Your task to perform on an android device: Play the new Katy Perry video on YouTube Image 0: 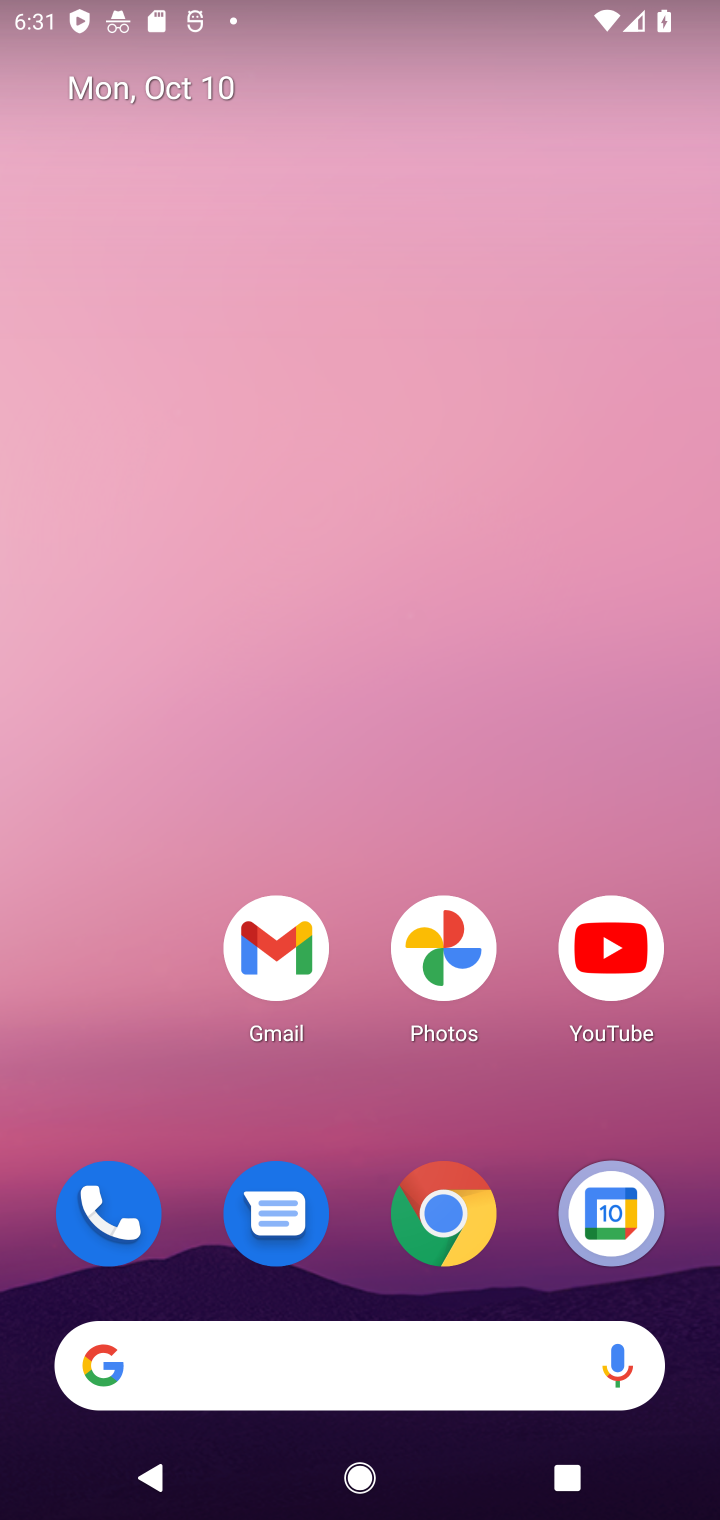
Step 0: click (619, 946)
Your task to perform on an android device: Play the new Katy Perry video on YouTube Image 1: 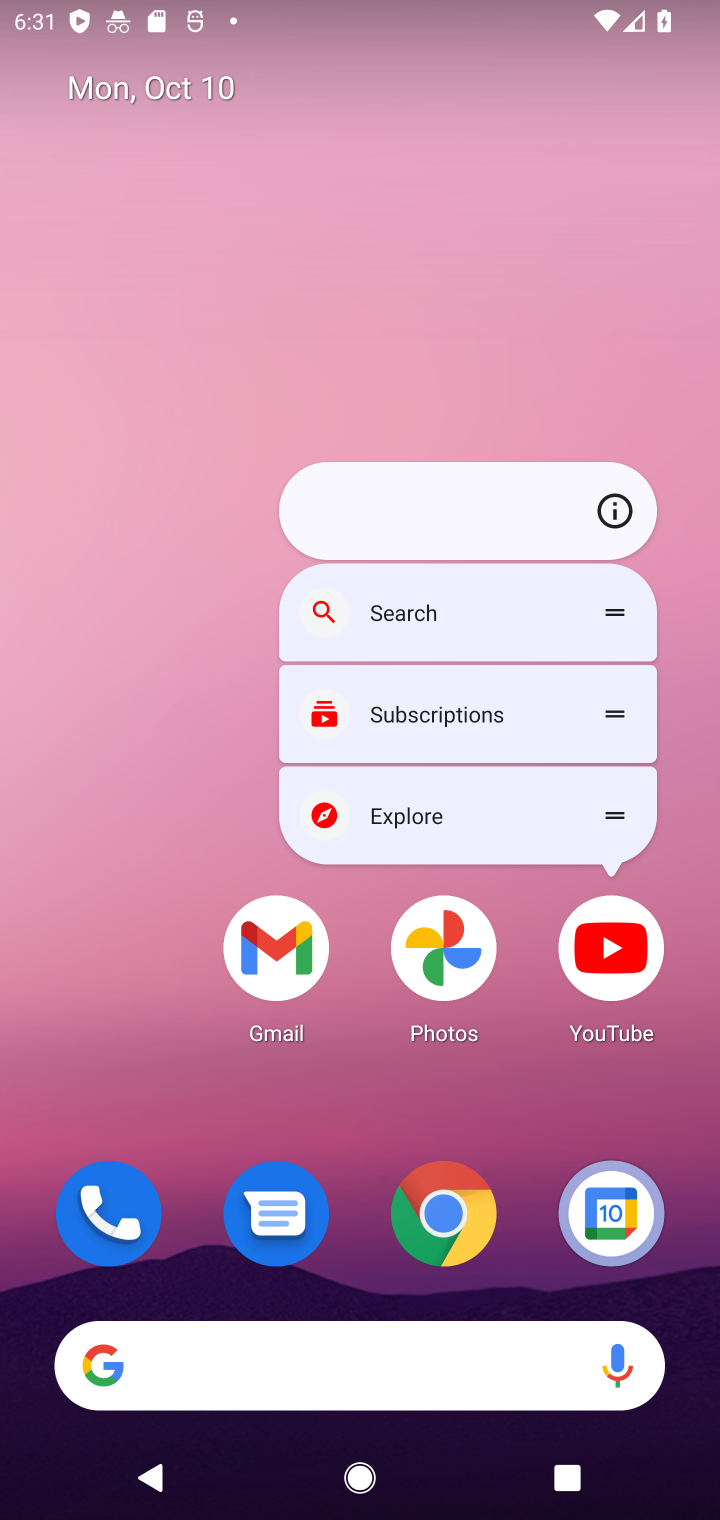
Step 1: click (606, 964)
Your task to perform on an android device: Play the new Katy Perry video on YouTube Image 2: 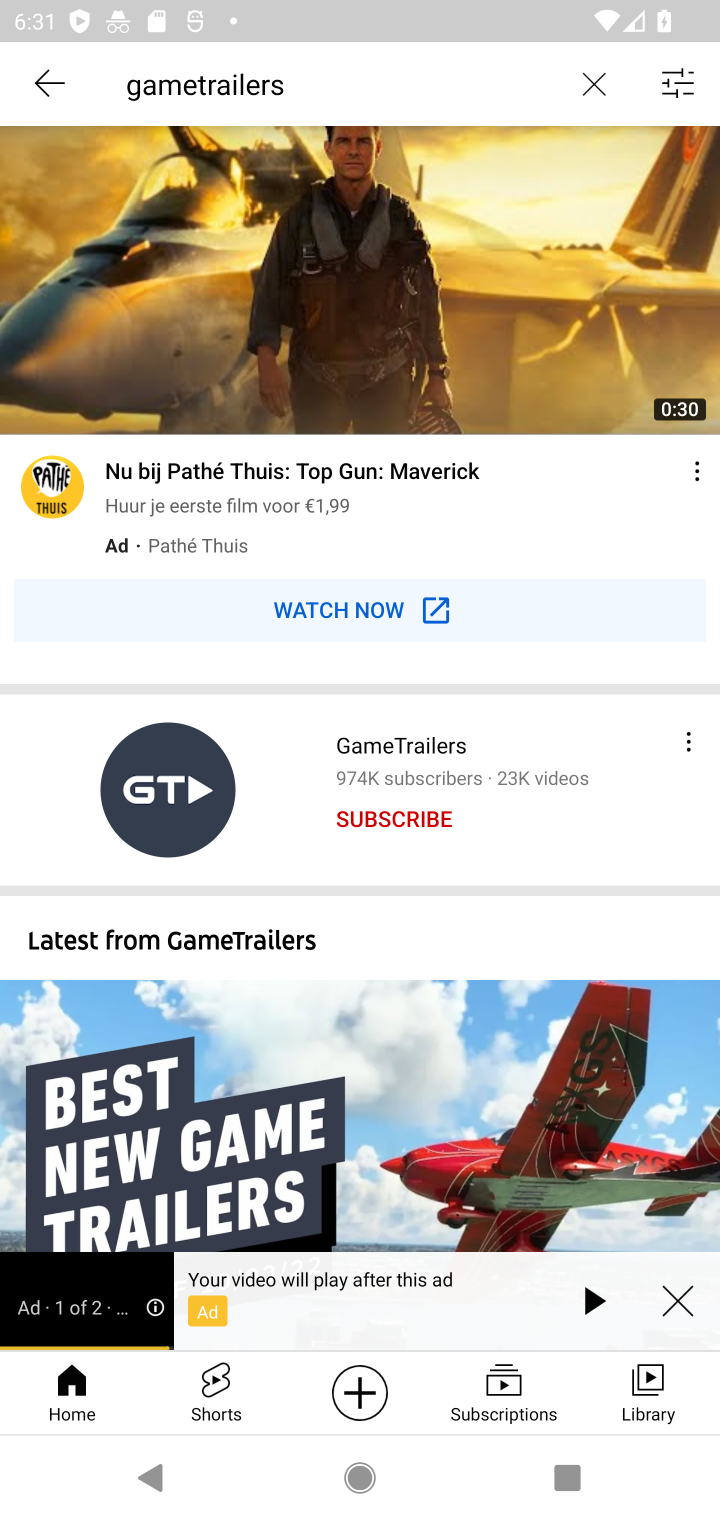
Step 2: click (598, 90)
Your task to perform on an android device: Play the new Katy Perry video on YouTube Image 3: 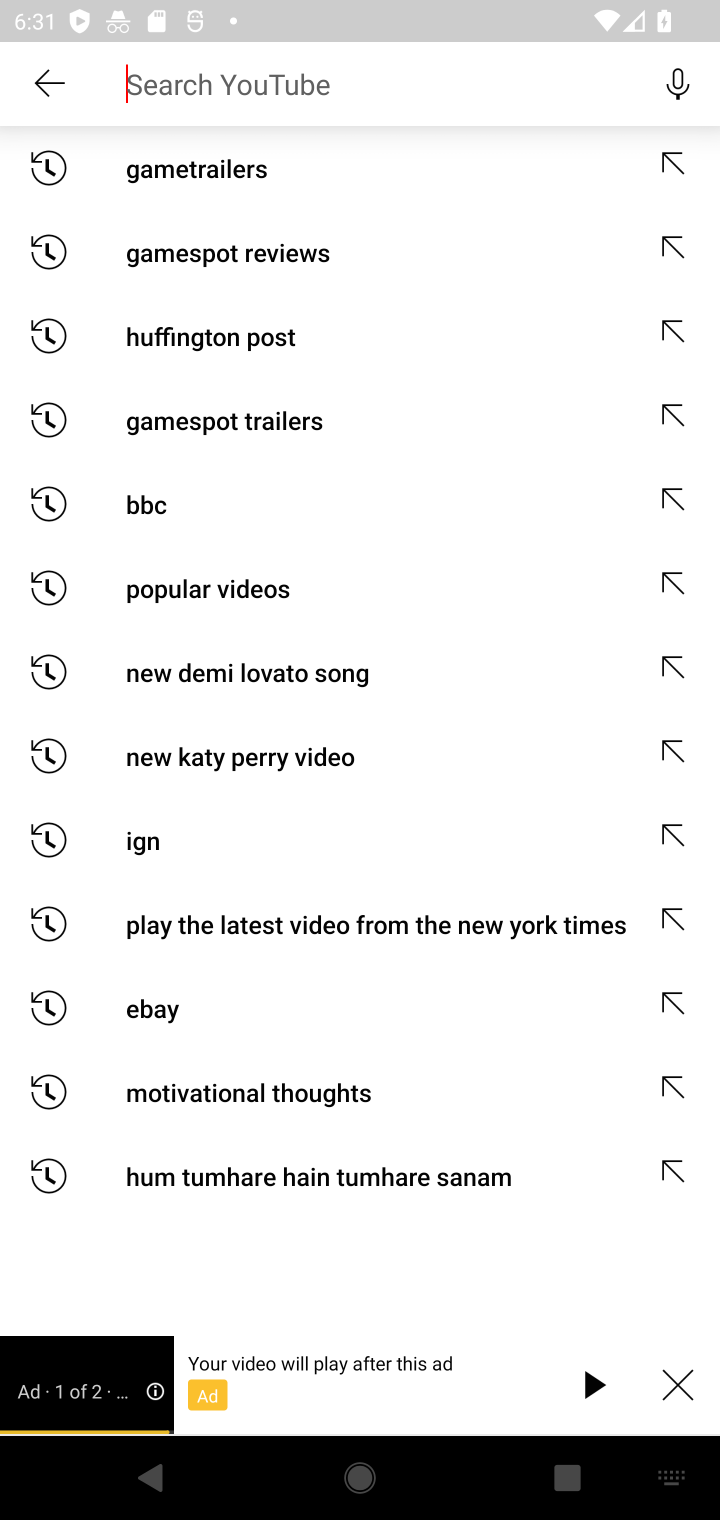
Step 3: click (324, 72)
Your task to perform on an android device: Play the new Katy Perry video on YouTube Image 4: 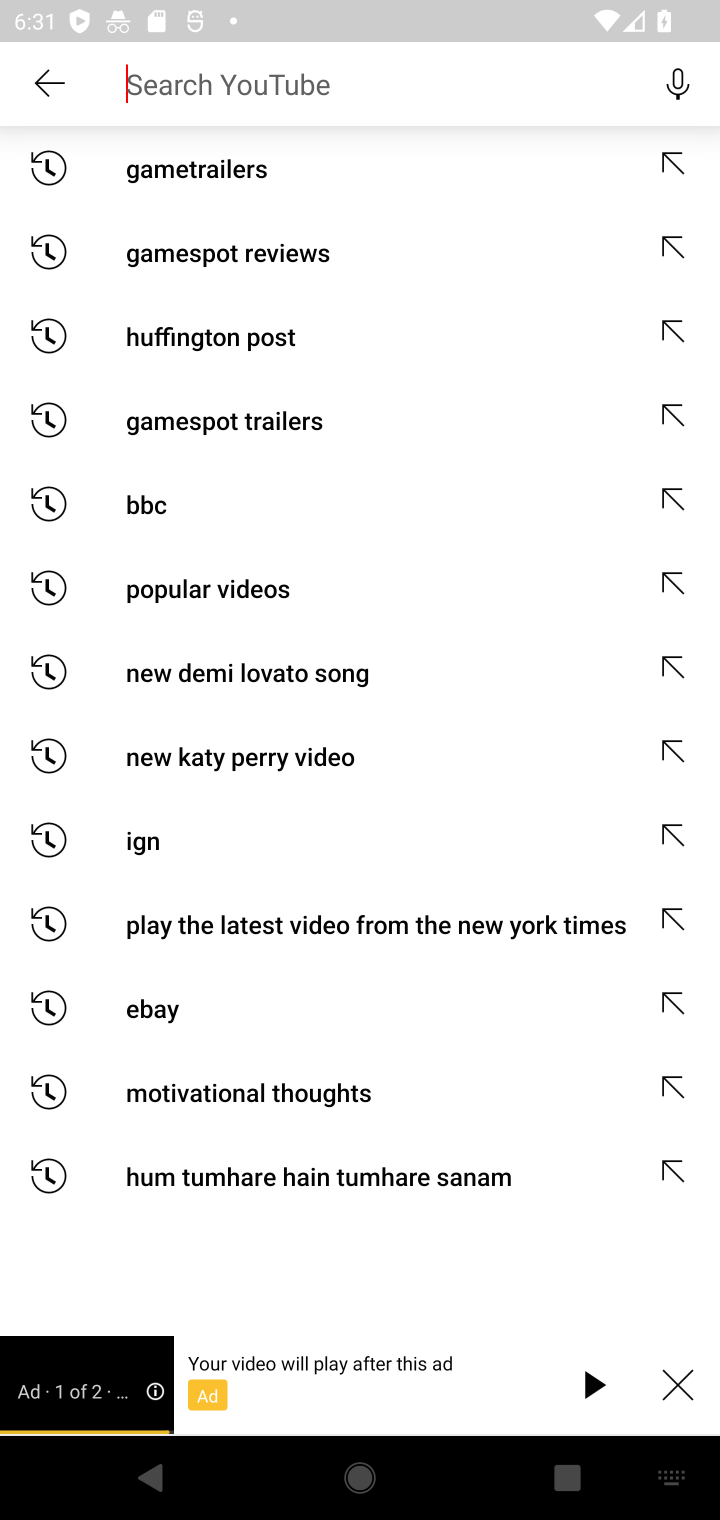
Step 4: type "Katy Perry "
Your task to perform on an android device: Play the new Katy Perry video on YouTube Image 5: 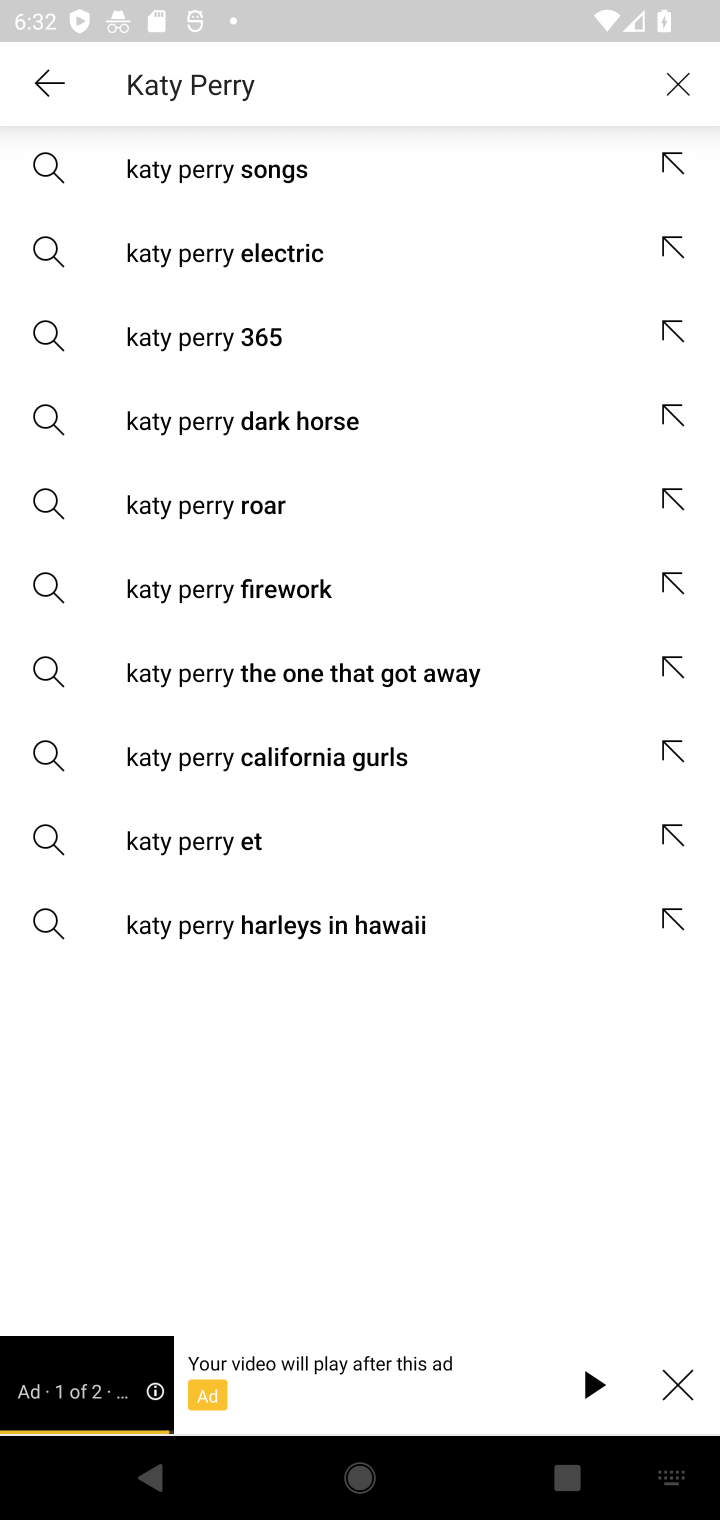
Step 5: click (250, 175)
Your task to perform on an android device: Play the new Katy Perry video on YouTube Image 6: 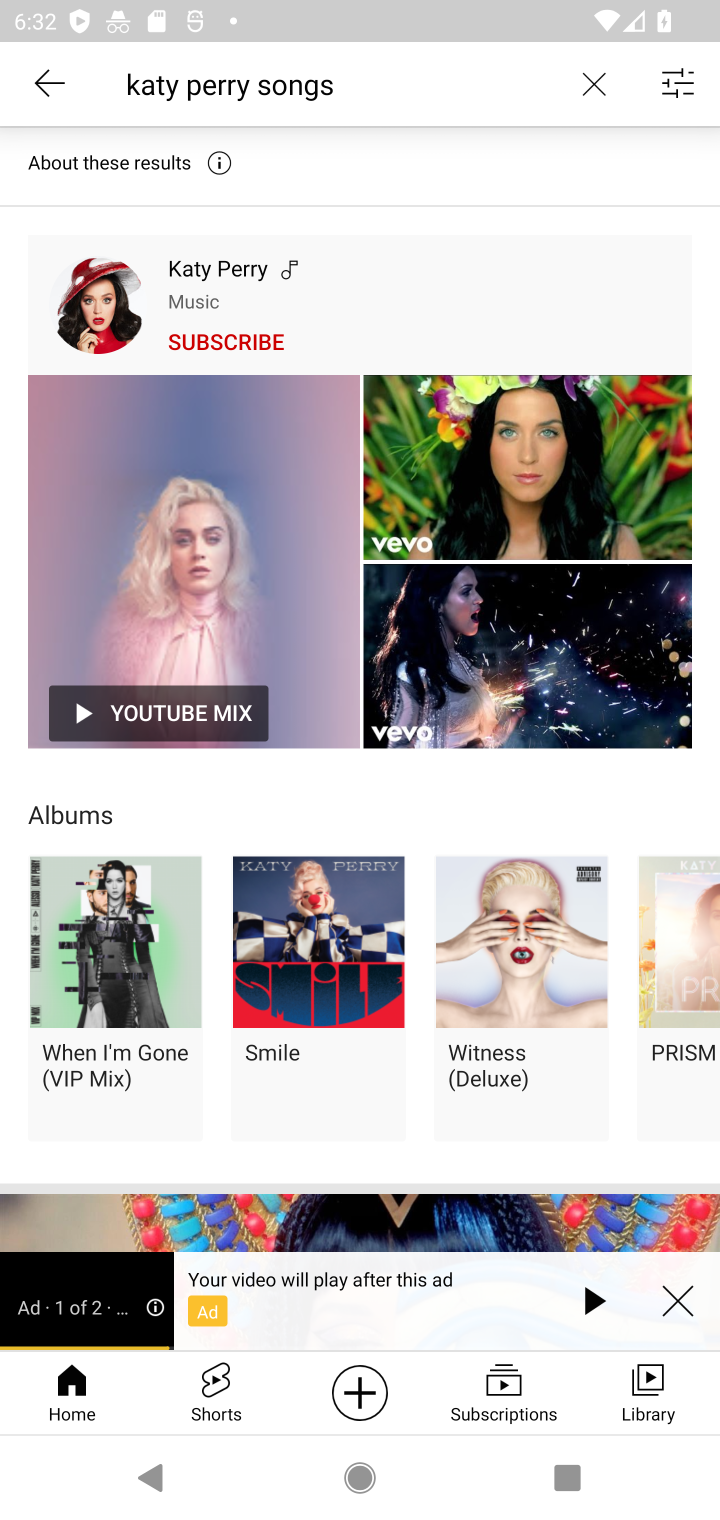
Step 6: drag from (370, 1138) to (524, 157)
Your task to perform on an android device: Play the new Katy Perry video on YouTube Image 7: 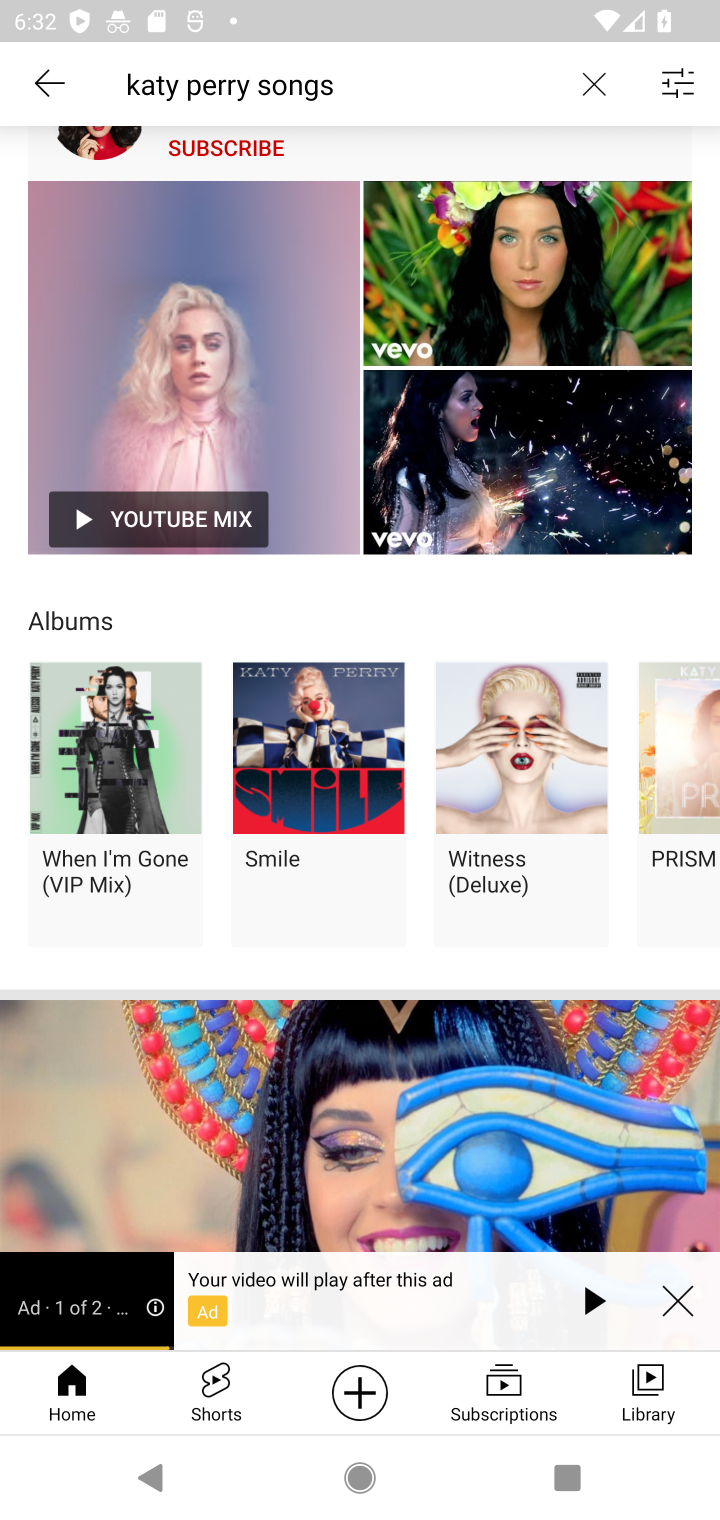
Step 7: drag from (455, 571) to (465, 100)
Your task to perform on an android device: Play the new Katy Perry video on YouTube Image 8: 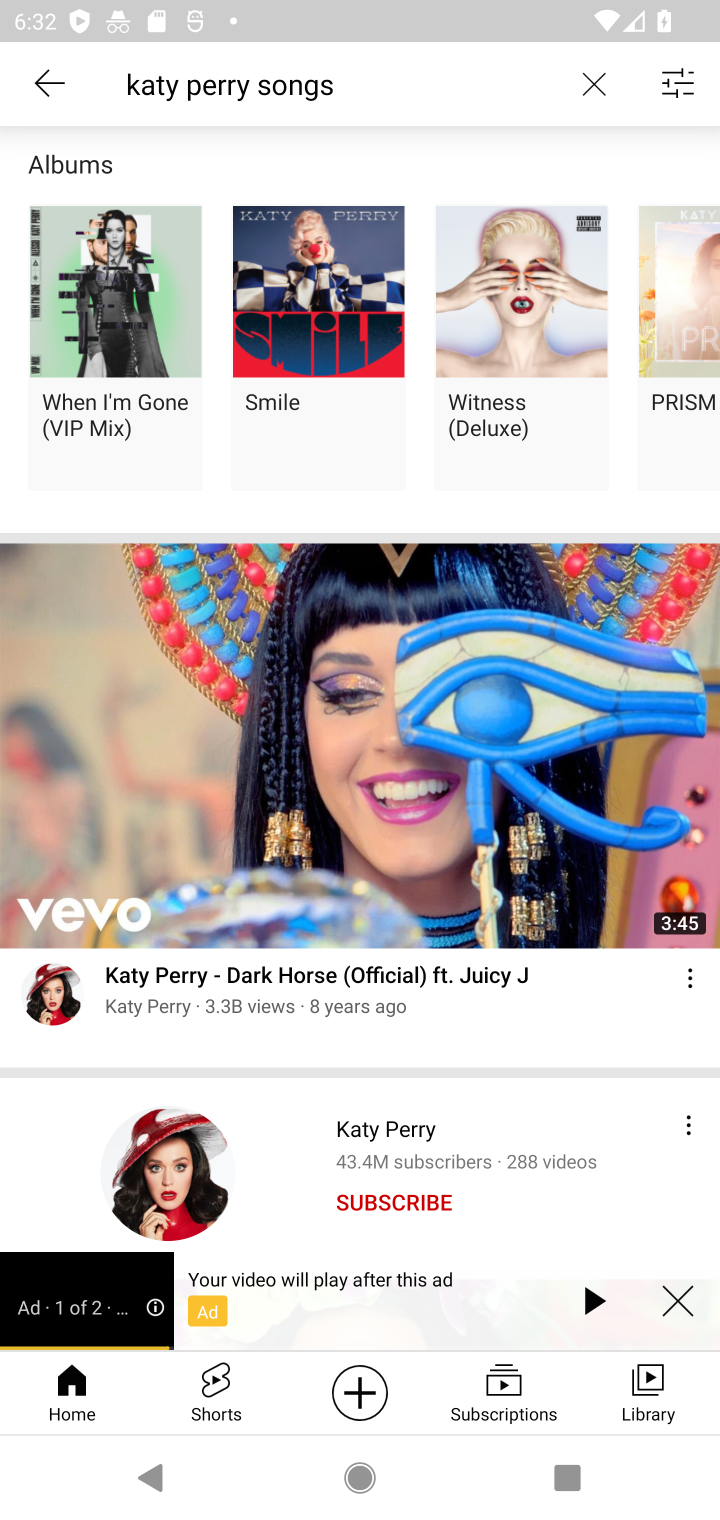
Step 8: drag from (247, 651) to (384, 388)
Your task to perform on an android device: Play the new Katy Perry video on YouTube Image 9: 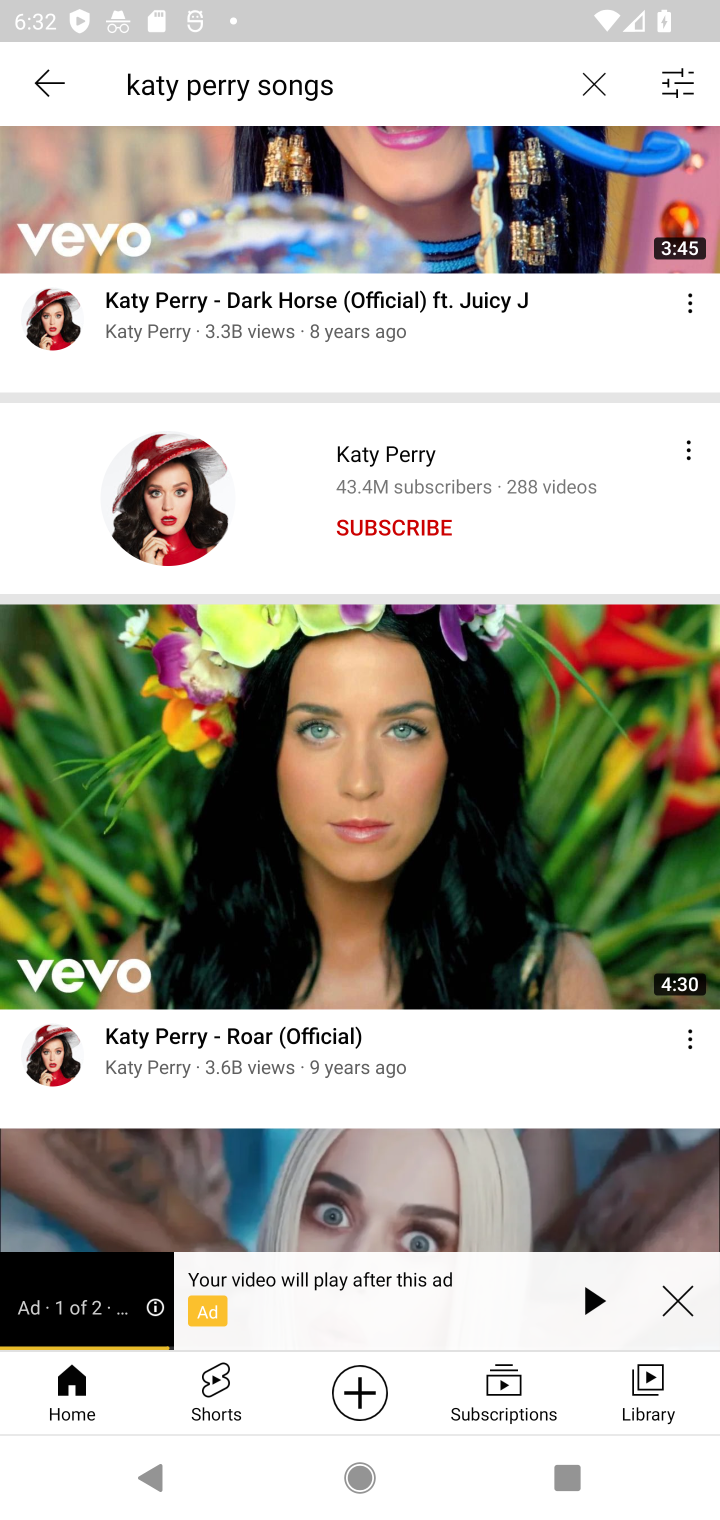
Step 9: click (383, 454)
Your task to perform on an android device: Play the new Katy Perry video on YouTube Image 10: 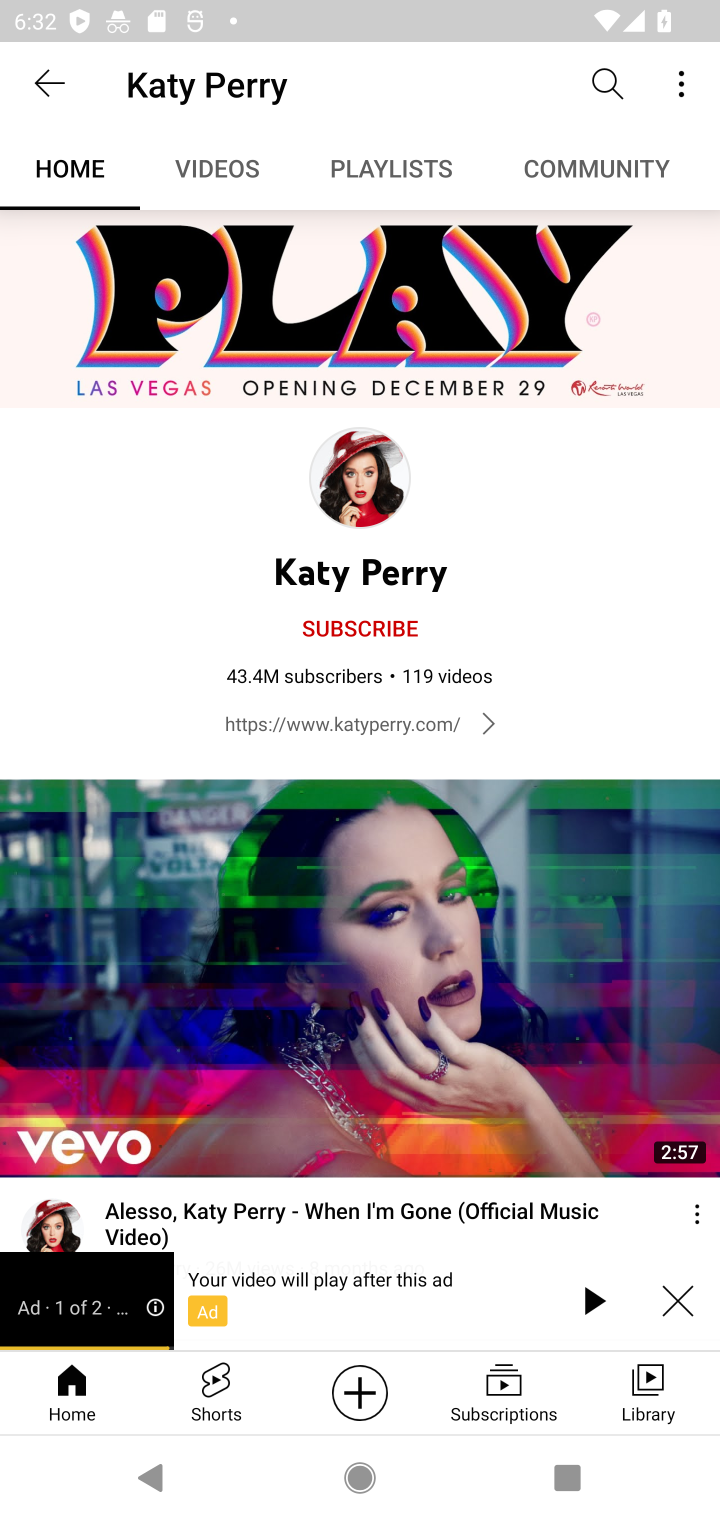
Step 10: drag from (450, 943) to (563, 324)
Your task to perform on an android device: Play the new Katy Perry video on YouTube Image 11: 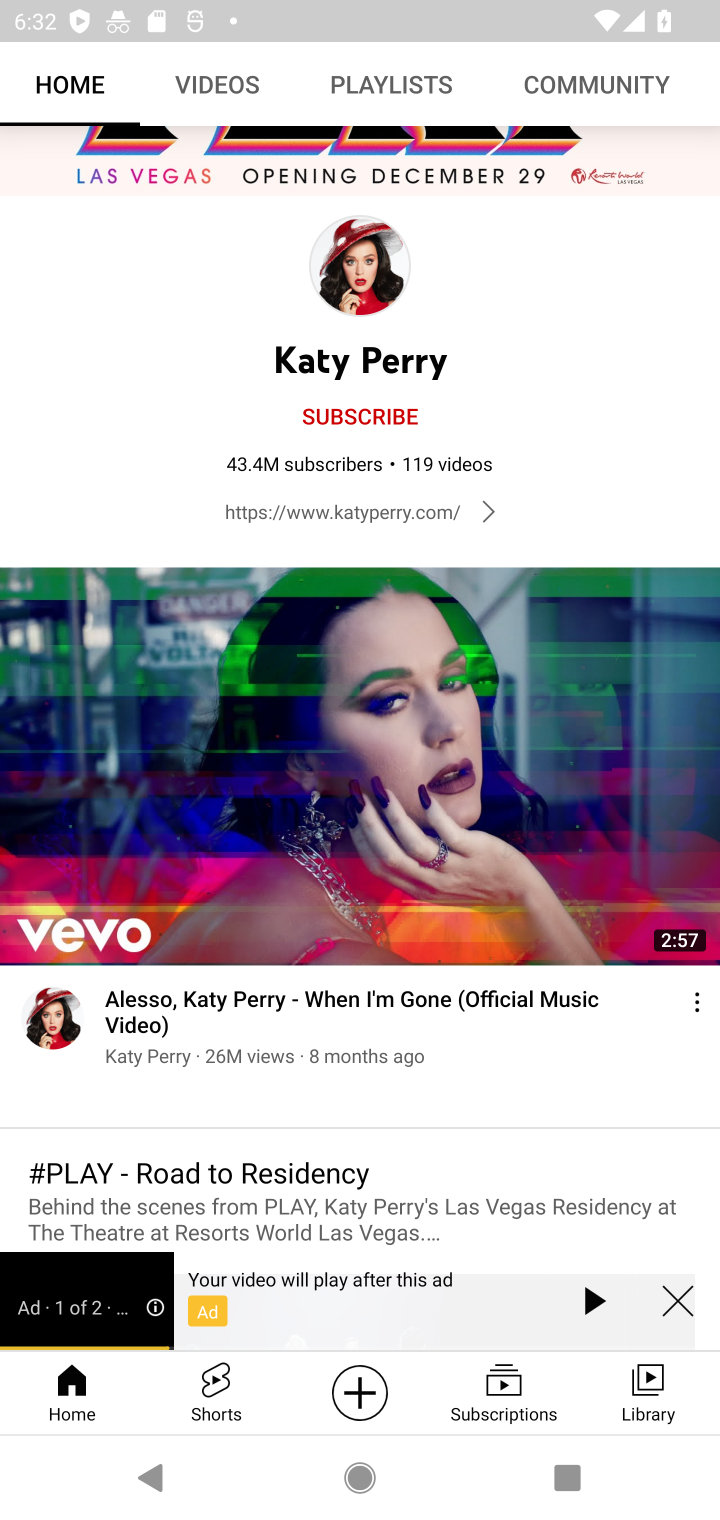
Step 11: click (330, 756)
Your task to perform on an android device: Play the new Katy Perry video on YouTube Image 12: 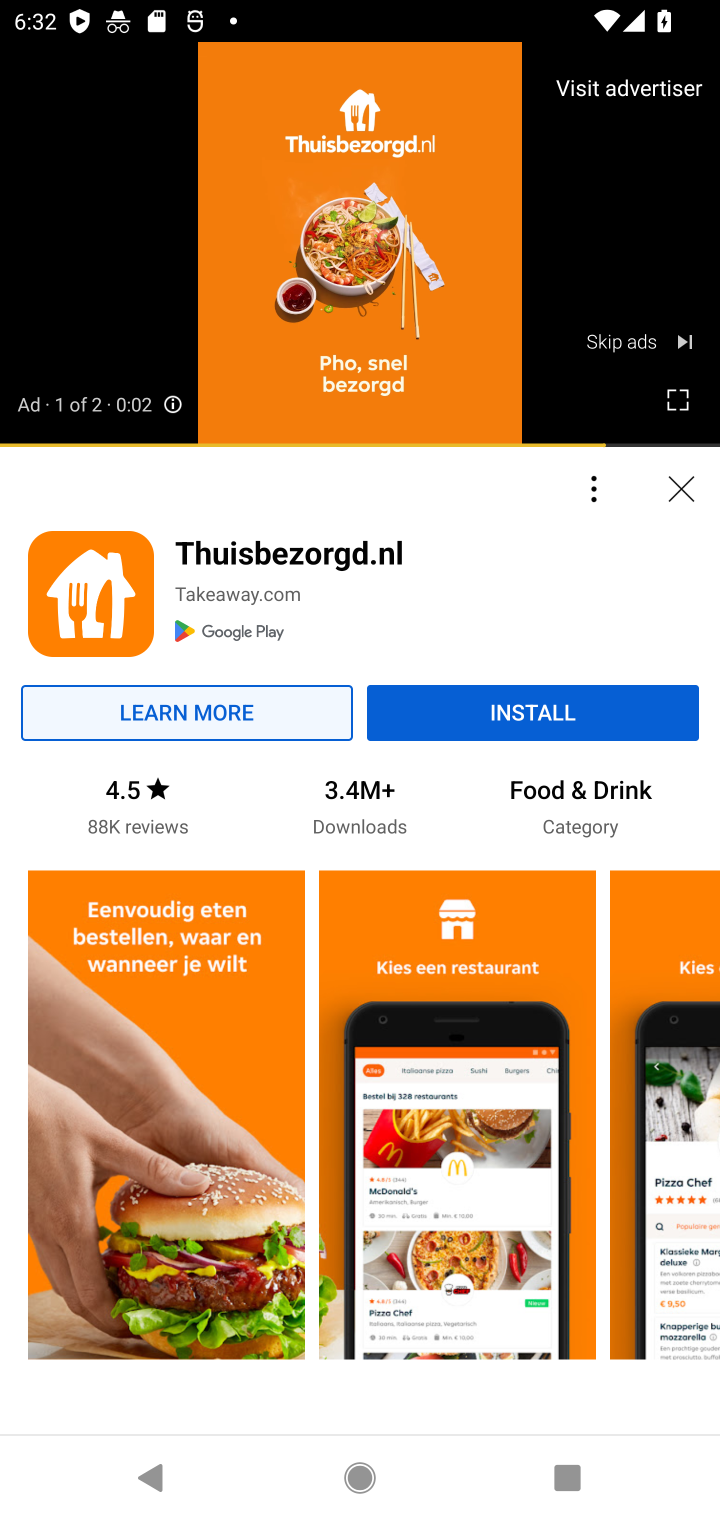
Step 12: click (595, 361)
Your task to perform on an android device: Play the new Katy Perry video on YouTube Image 13: 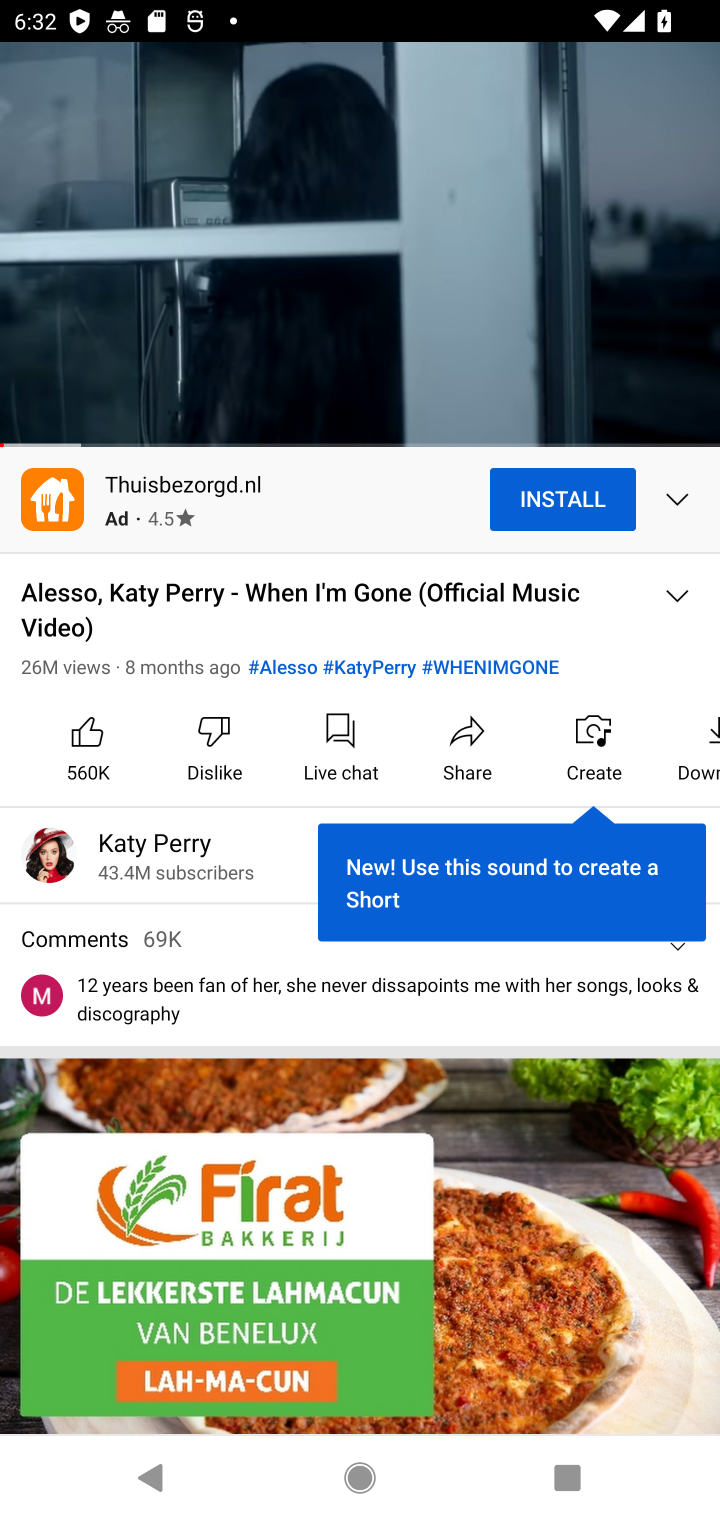
Step 13: click (608, 354)
Your task to perform on an android device: Play the new Katy Perry video on YouTube Image 14: 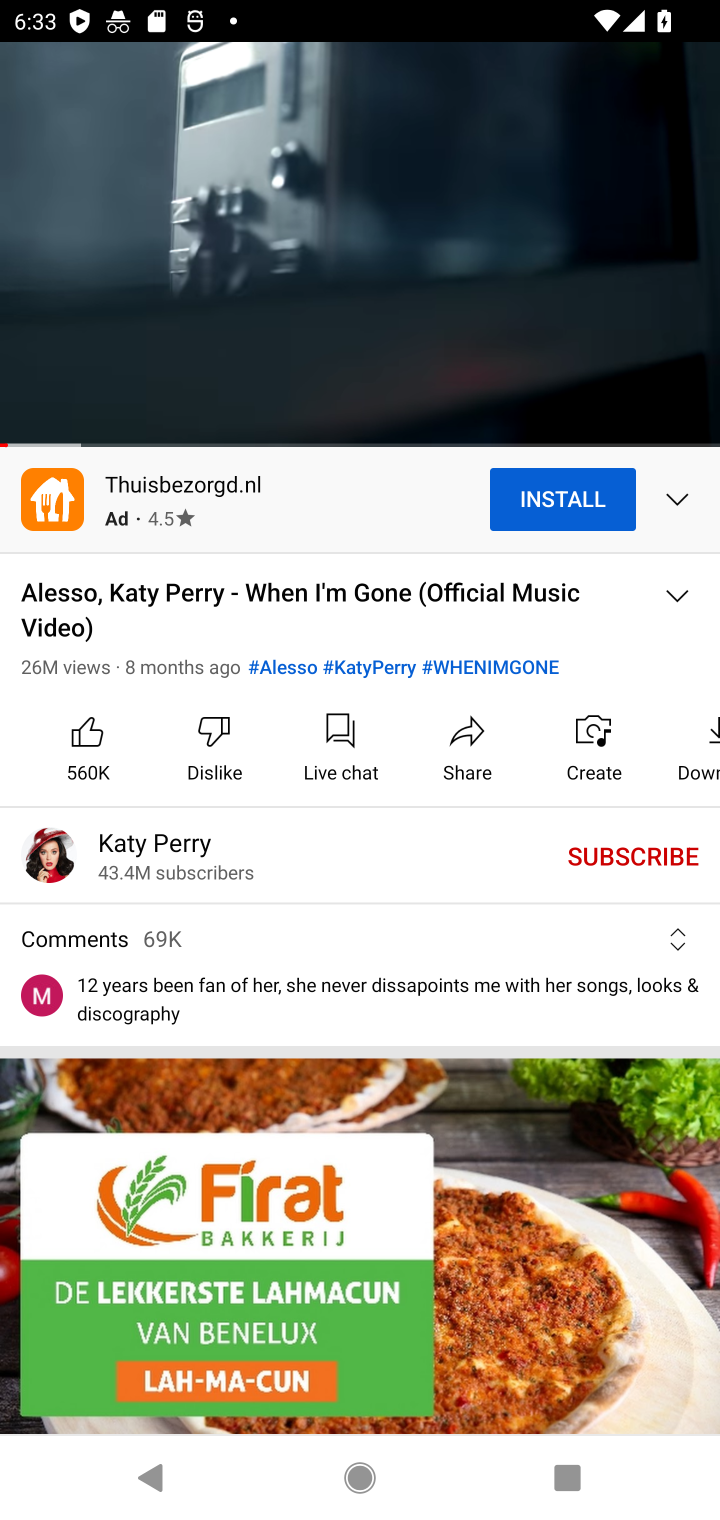
Step 14: task complete